Your task to perform on an android device: add a label to a message in the gmail app Image 0: 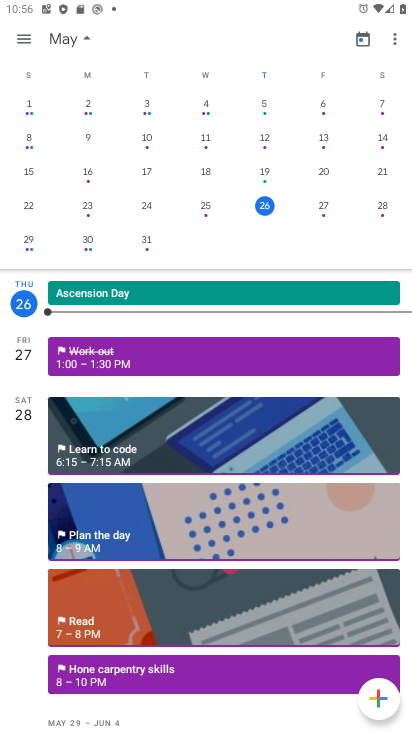
Step 0: press home button
Your task to perform on an android device: add a label to a message in the gmail app Image 1: 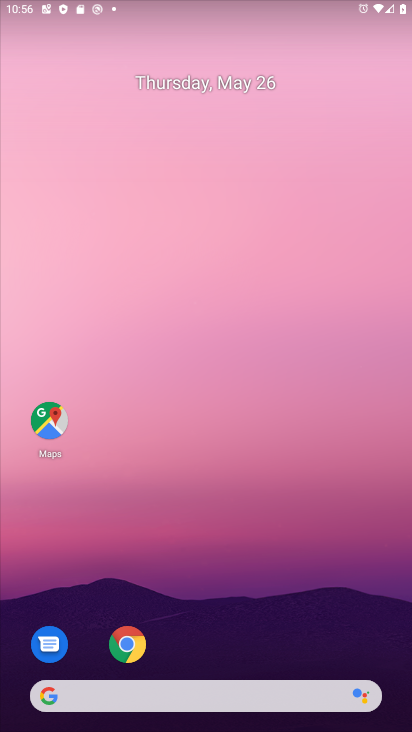
Step 1: drag from (230, 615) to (194, 179)
Your task to perform on an android device: add a label to a message in the gmail app Image 2: 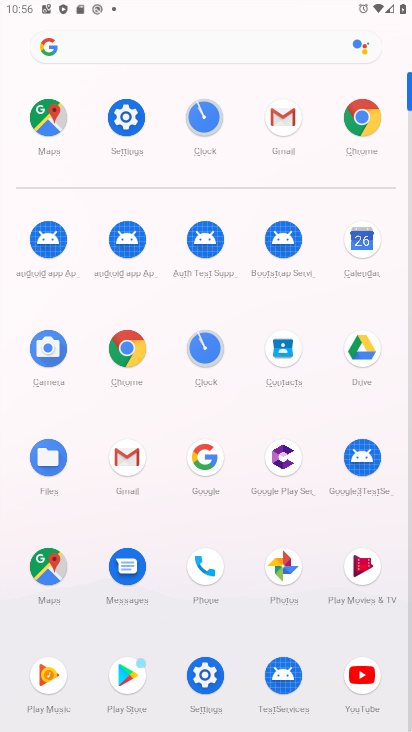
Step 2: click (285, 125)
Your task to perform on an android device: add a label to a message in the gmail app Image 3: 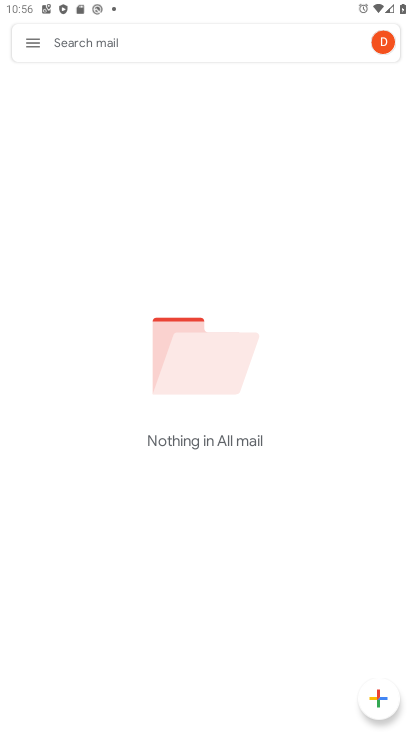
Step 3: click (31, 50)
Your task to perform on an android device: add a label to a message in the gmail app Image 4: 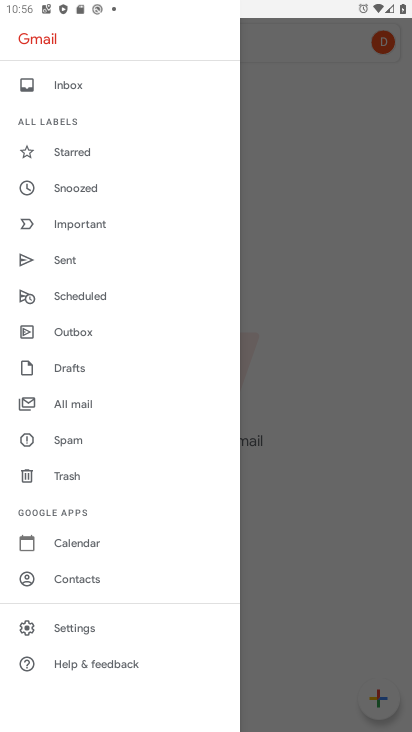
Step 4: click (91, 390)
Your task to perform on an android device: add a label to a message in the gmail app Image 5: 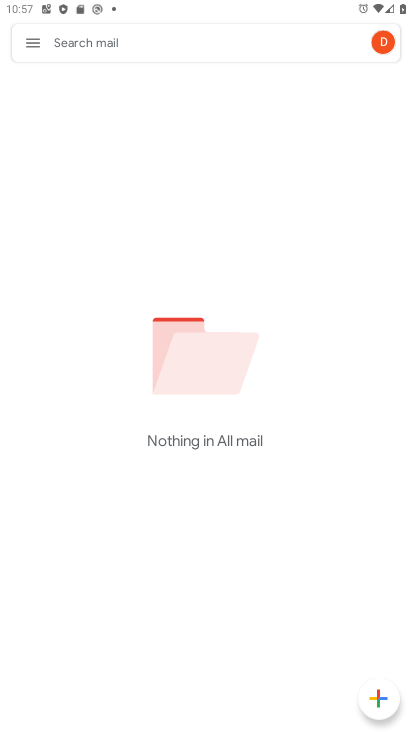
Step 5: task complete